Your task to perform on an android device: change the clock display to analog Image 0: 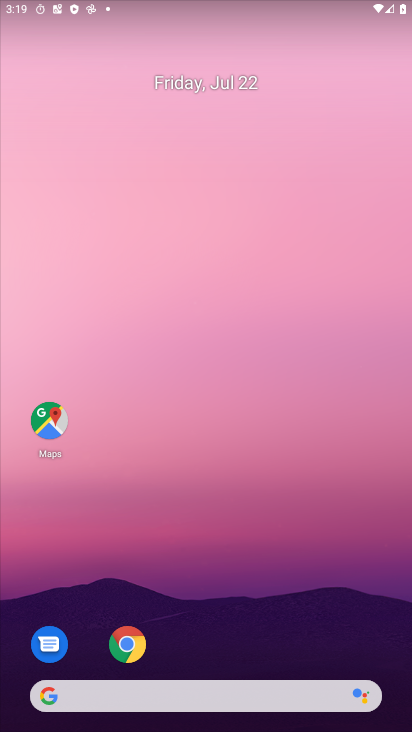
Step 0: drag from (204, 634) to (178, 158)
Your task to perform on an android device: change the clock display to analog Image 1: 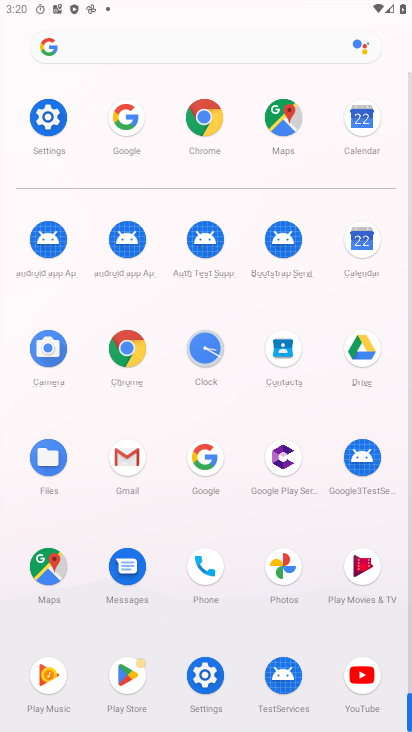
Step 1: click (197, 374)
Your task to perform on an android device: change the clock display to analog Image 2: 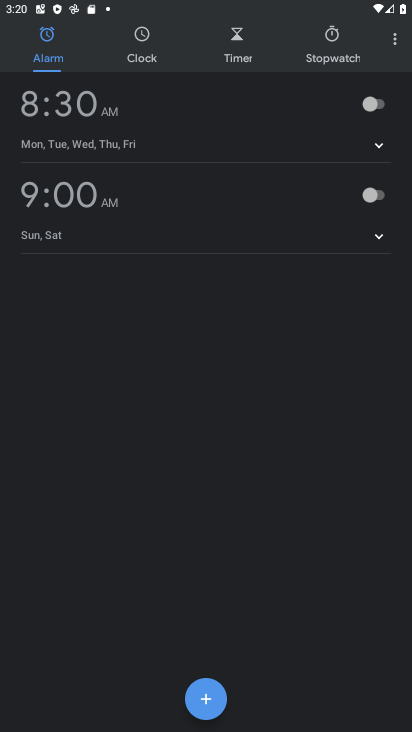
Step 2: click (396, 42)
Your task to perform on an android device: change the clock display to analog Image 3: 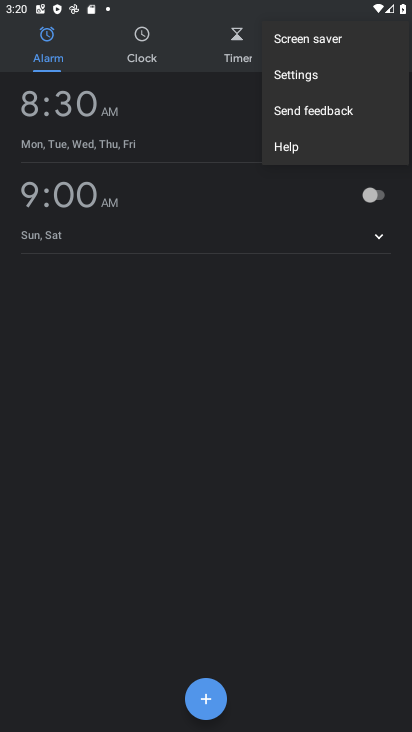
Step 3: click (305, 82)
Your task to perform on an android device: change the clock display to analog Image 4: 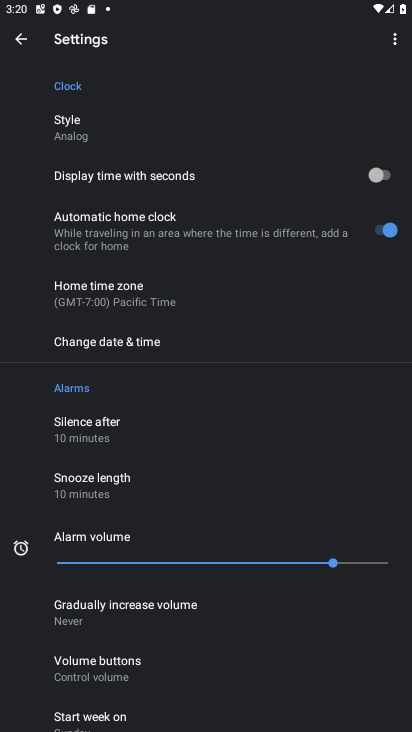
Step 4: click (77, 138)
Your task to perform on an android device: change the clock display to analog Image 5: 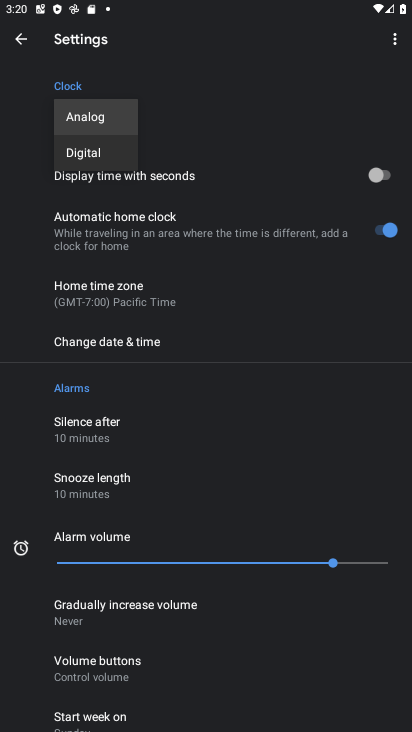
Step 5: task complete